Your task to perform on an android device: open sync settings in chrome Image 0: 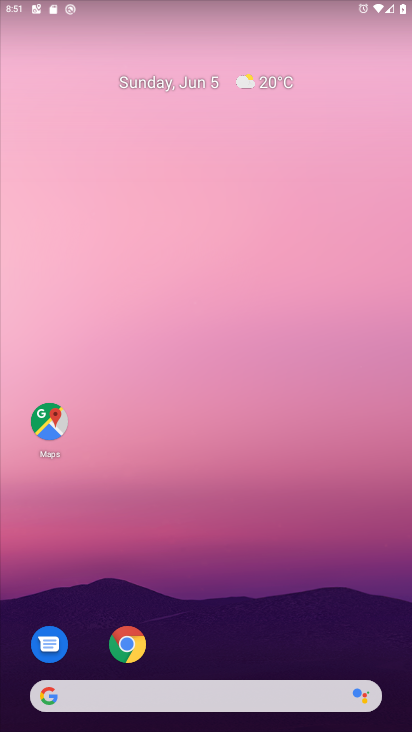
Step 0: drag from (224, 614) to (309, 204)
Your task to perform on an android device: open sync settings in chrome Image 1: 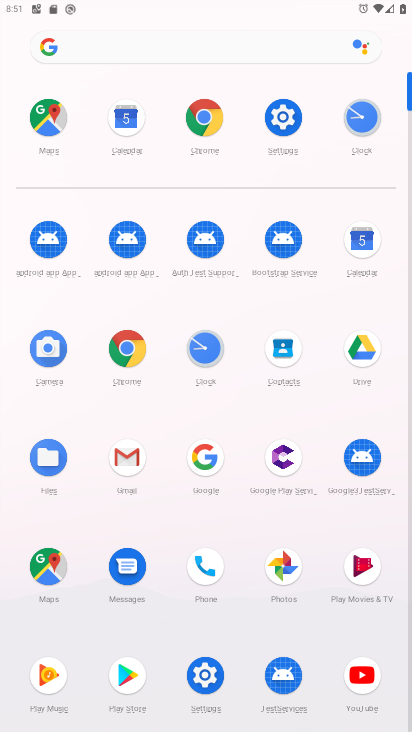
Step 1: click (141, 367)
Your task to perform on an android device: open sync settings in chrome Image 2: 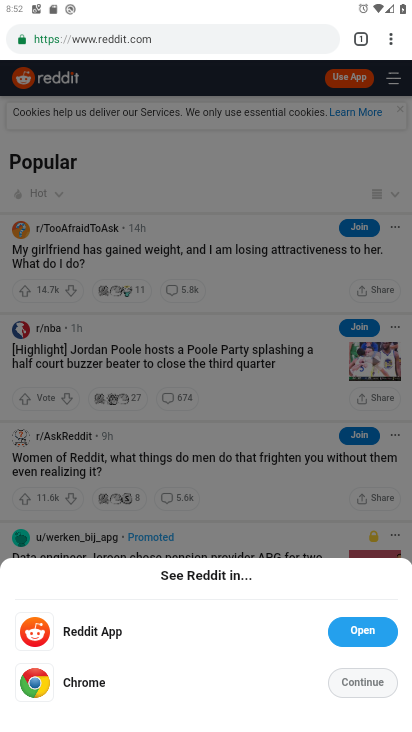
Step 2: drag from (393, 46) to (262, 471)
Your task to perform on an android device: open sync settings in chrome Image 3: 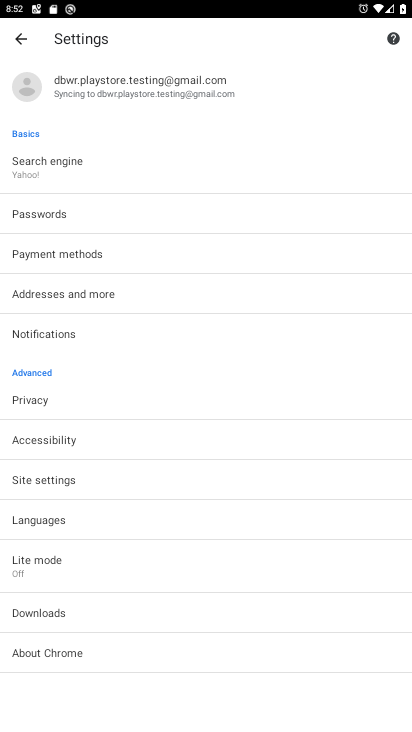
Step 3: click (62, 476)
Your task to perform on an android device: open sync settings in chrome Image 4: 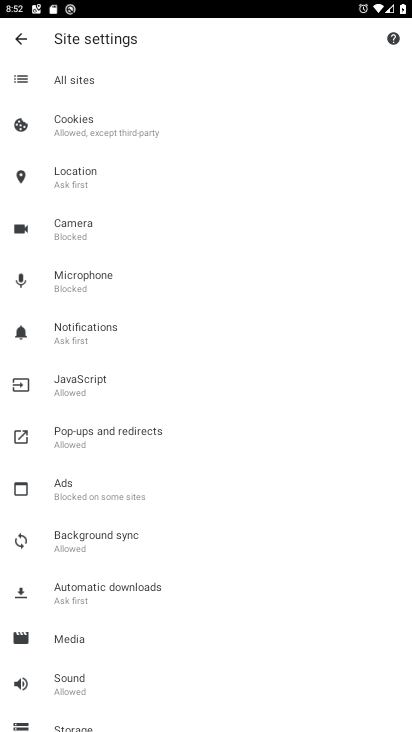
Step 4: click (87, 547)
Your task to perform on an android device: open sync settings in chrome Image 5: 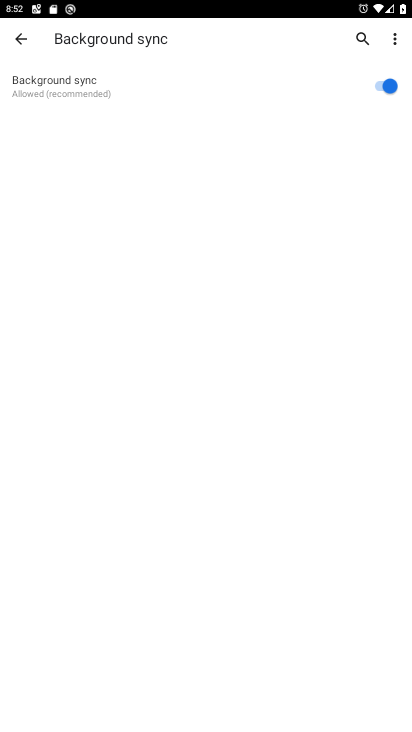
Step 5: task complete